Your task to perform on an android device: show emergency info Image 0: 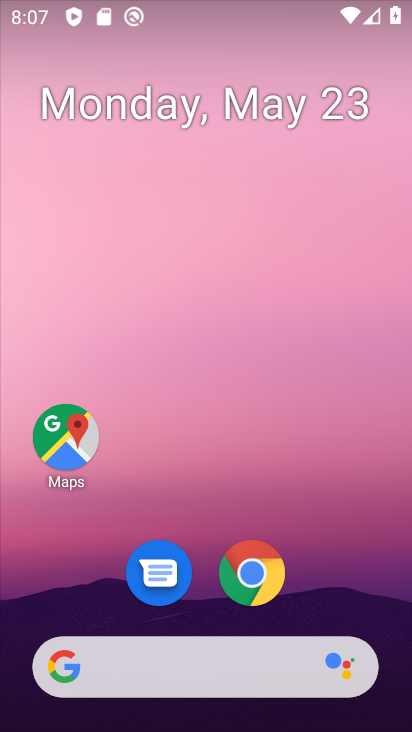
Step 0: press home button
Your task to perform on an android device: show emergency info Image 1: 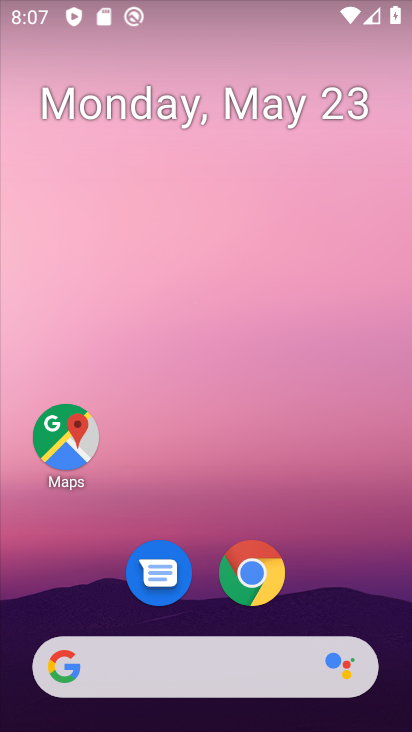
Step 1: drag from (208, 618) to (267, 12)
Your task to perform on an android device: show emergency info Image 2: 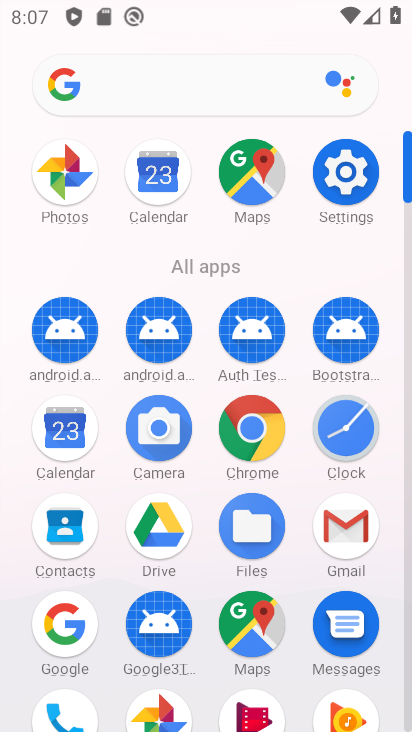
Step 2: click (340, 169)
Your task to perform on an android device: show emergency info Image 3: 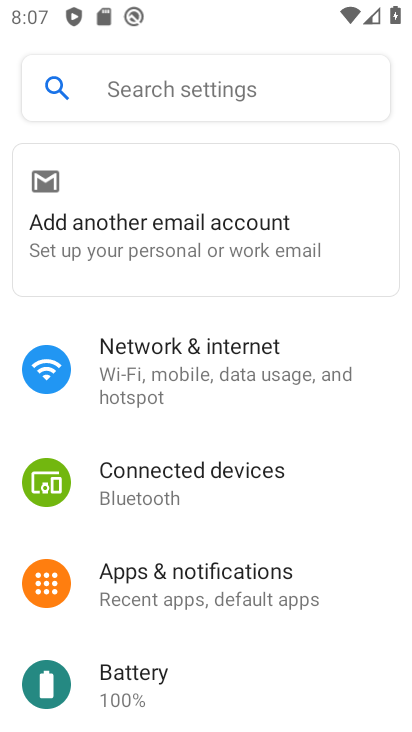
Step 3: drag from (200, 677) to (227, 51)
Your task to perform on an android device: show emergency info Image 4: 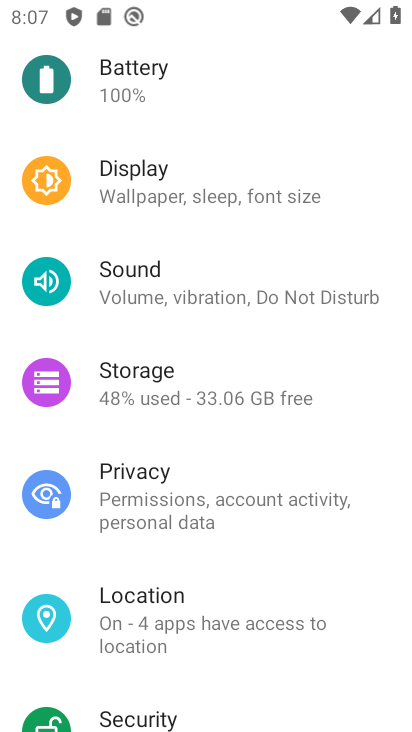
Step 4: drag from (209, 678) to (235, 52)
Your task to perform on an android device: show emergency info Image 5: 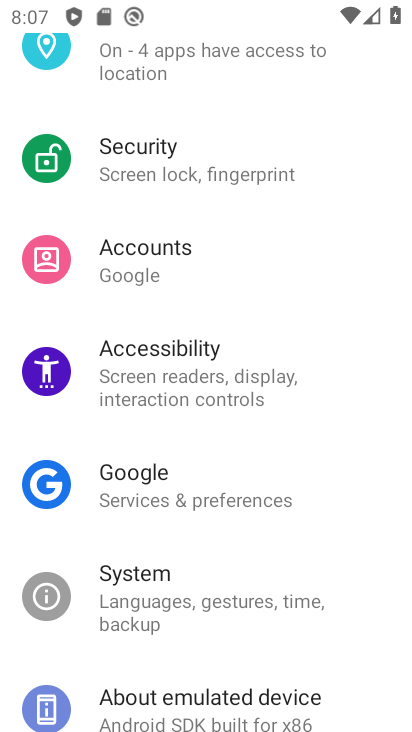
Step 5: click (217, 691)
Your task to perform on an android device: show emergency info Image 6: 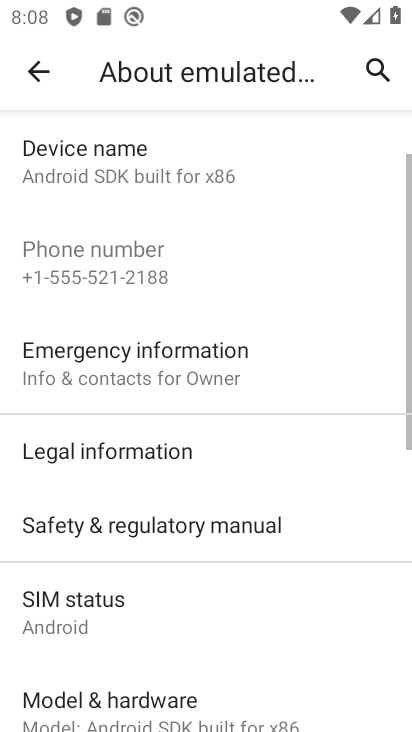
Step 6: click (252, 359)
Your task to perform on an android device: show emergency info Image 7: 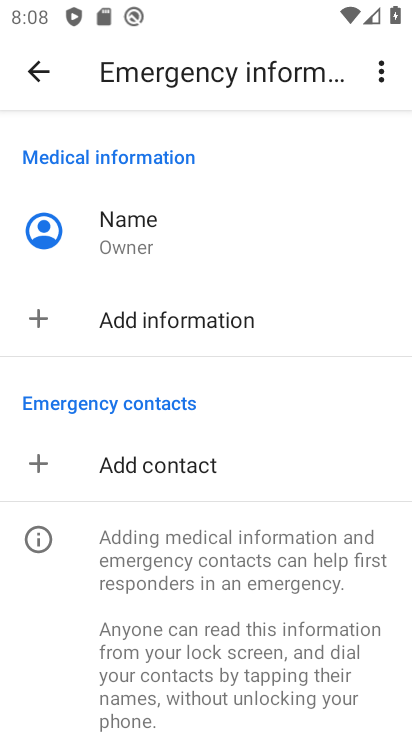
Step 7: task complete